Your task to perform on an android device: turn off airplane mode Image 0: 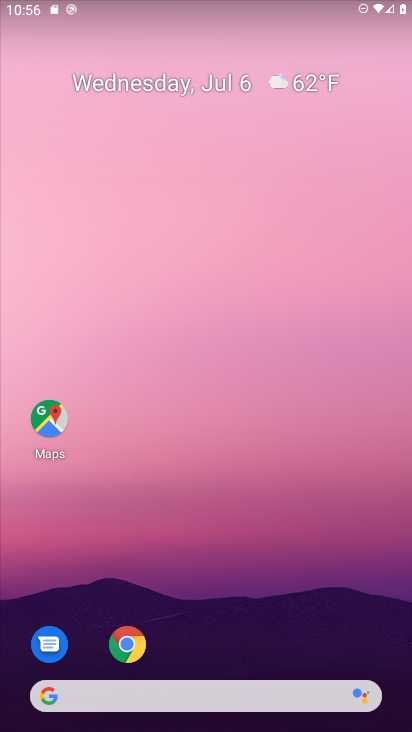
Step 0: press home button
Your task to perform on an android device: turn off airplane mode Image 1: 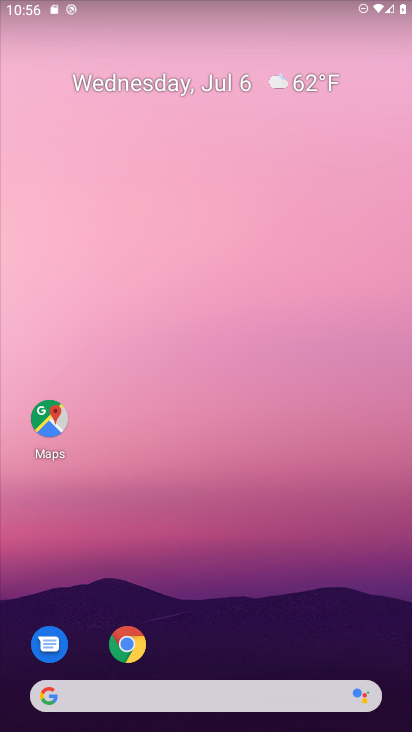
Step 1: task complete